Your task to perform on an android device: Check the news Image 0: 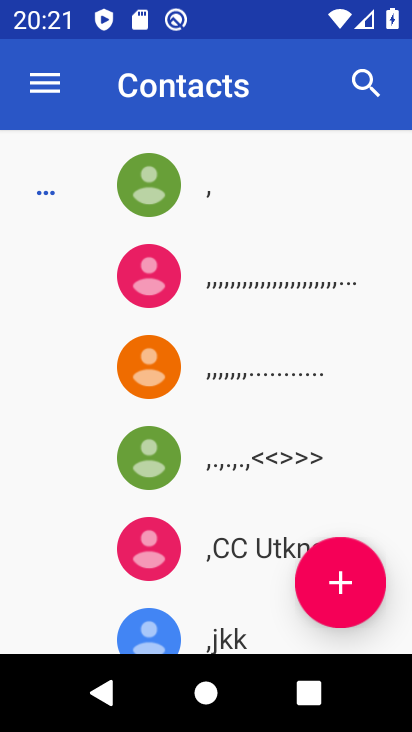
Step 0: press home button
Your task to perform on an android device: Check the news Image 1: 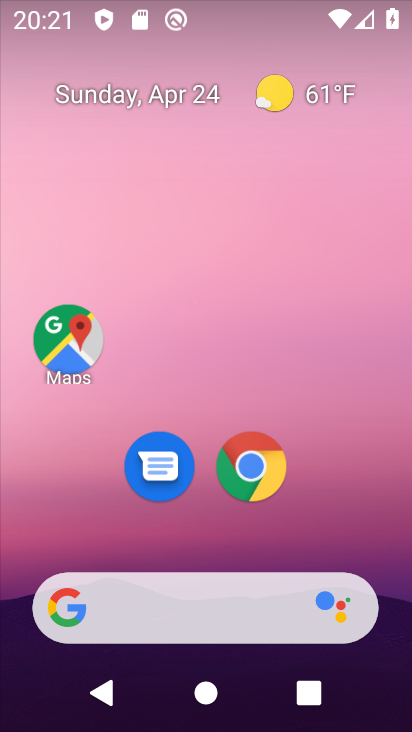
Step 1: click (209, 595)
Your task to perform on an android device: Check the news Image 2: 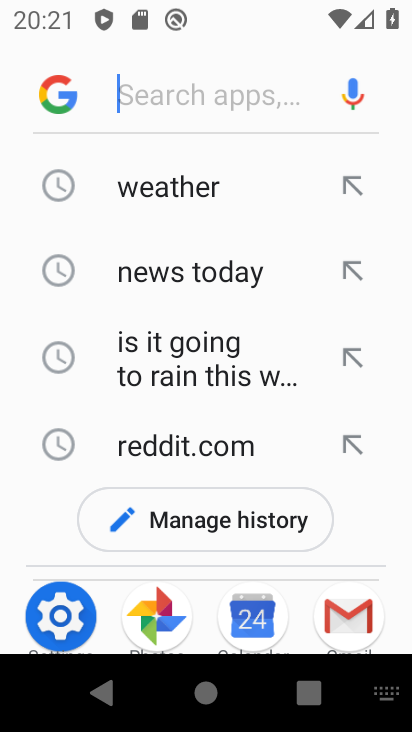
Step 2: type "news"
Your task to perform on an android device: Check the news Image 3: 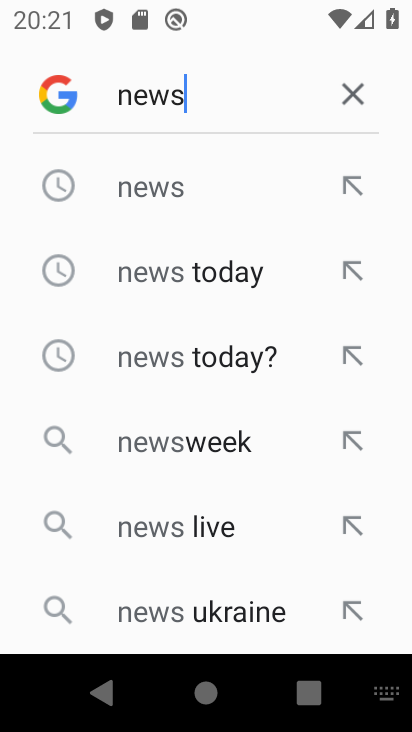
Step 3: click (191, 187)
Your task to perform on an android device: Check the news Image 4: 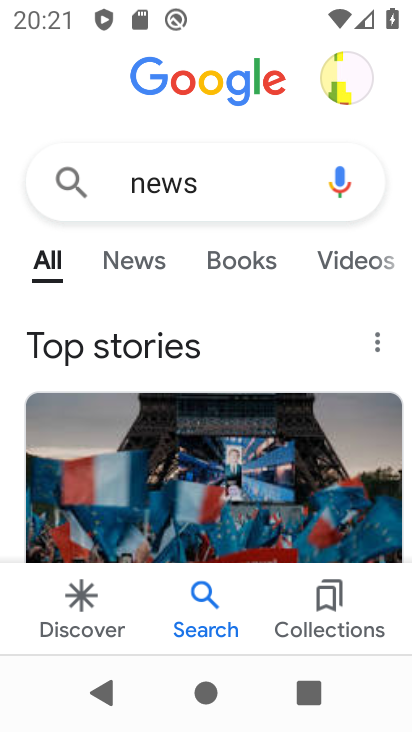
Step 4: task complete